Your task to perform on an android device: Search for sushi restaurants on Maps Image 0: 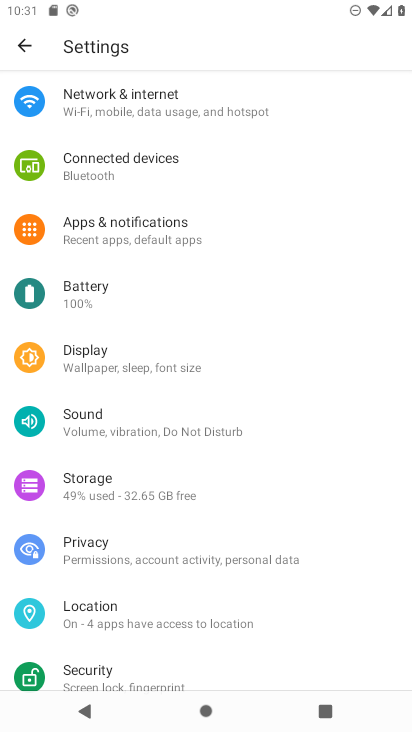
Step 0: press home button
Your task to perform on an android device: Search for sushi restaurants on Maps Image 1: 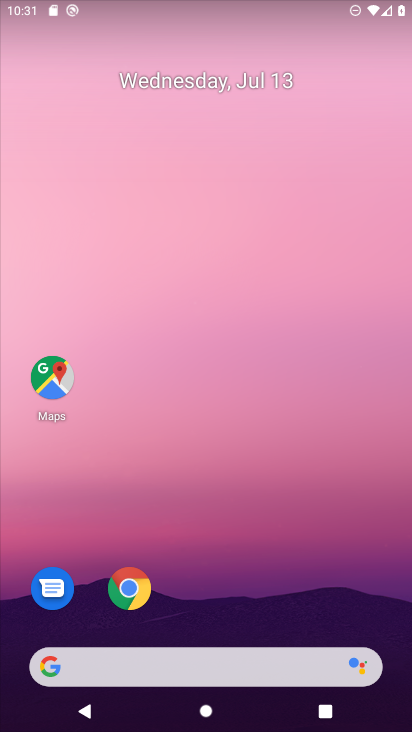
Step 1: click (39, 373)
Your task to perform on an android device: Search for sushi restaurants on Maps Image 2: 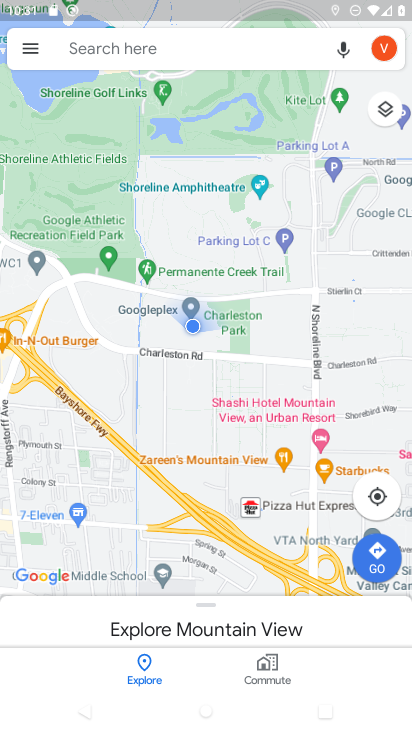
Step 2: click (168, 61)
Your task to perform on an android device: Search for sushi restaurants on Maps Image 3: 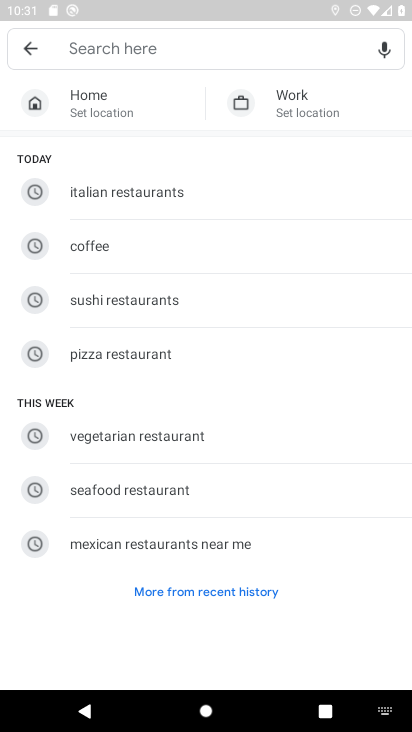
Step 3: type "sushi restaurants "
Your task to perform on an android device: Search for sushi restaurants on Maps Image 4: 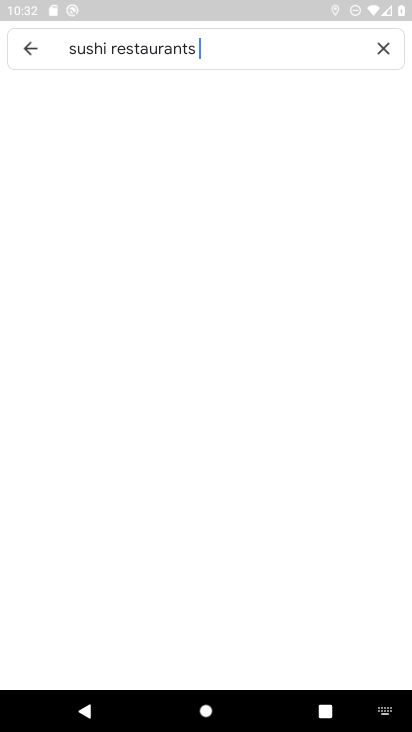
Step 4: type ""
Your task to perform on an android device: Search for sushi restaurants on Maps Image 5: 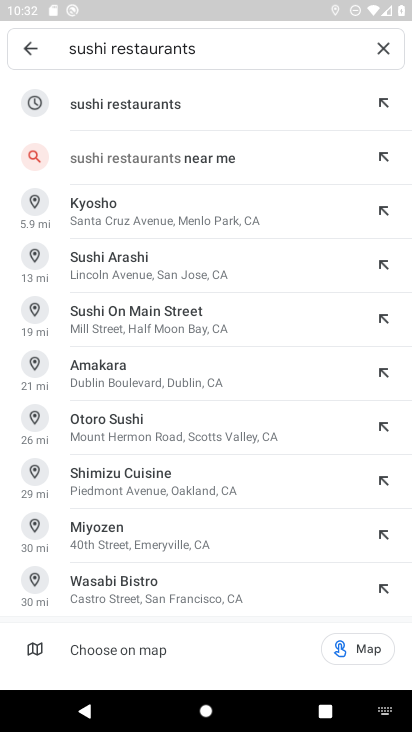
Step 5: click (277, 77)
Your task to perform on an android device: Search for sushi restaurants on Maps Image 6: 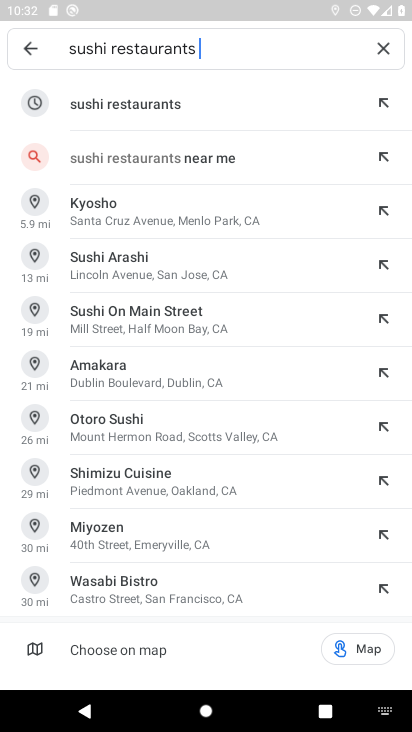
Step 6: click (223, 96)
Your task to perform on an android device: Search for sushi restaurants on Maps Image 7: 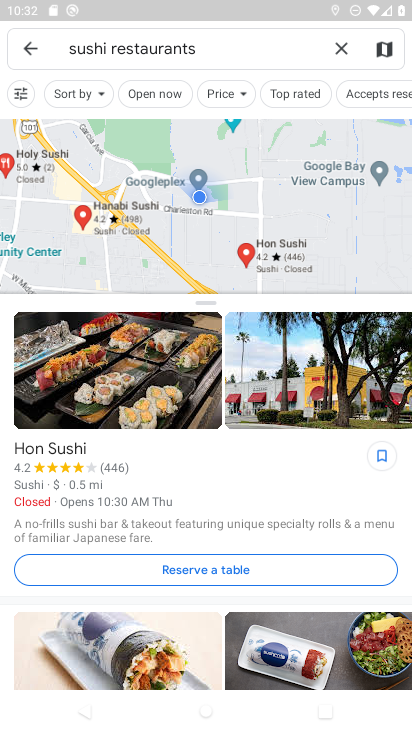
Step 7: task complete